Your task to perform on an android device: Do I have any events today? Image 0: 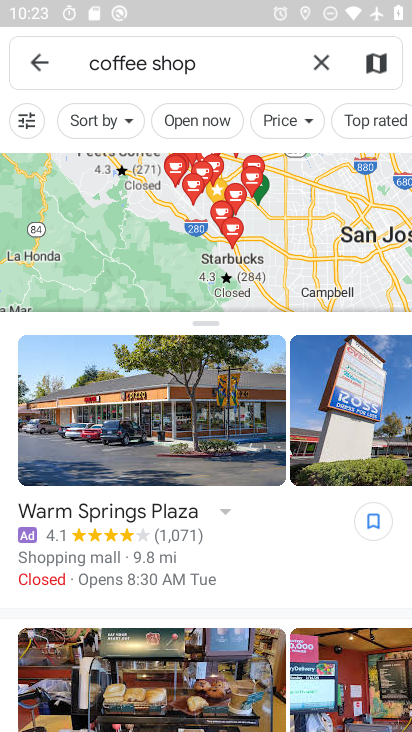
Step 0: press home button
Your task to perform on an android device: Do I have any events today? Image 1: 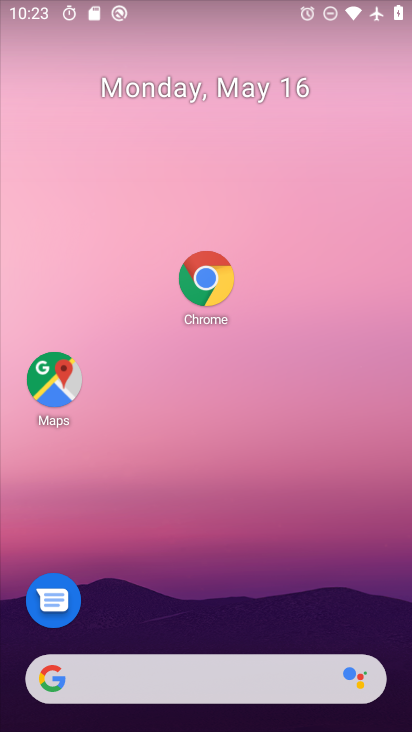
Step 1: drag from (184, 674) to (355, 240)
Your task to perform on an android device: Do I have any events today? Image 2: 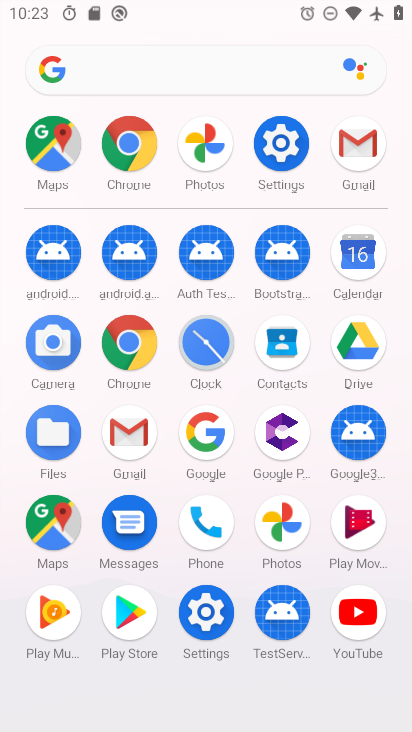
Step 2: click (349, 268)
Your task to perform on an android device: Do I have any events today? Image 3: 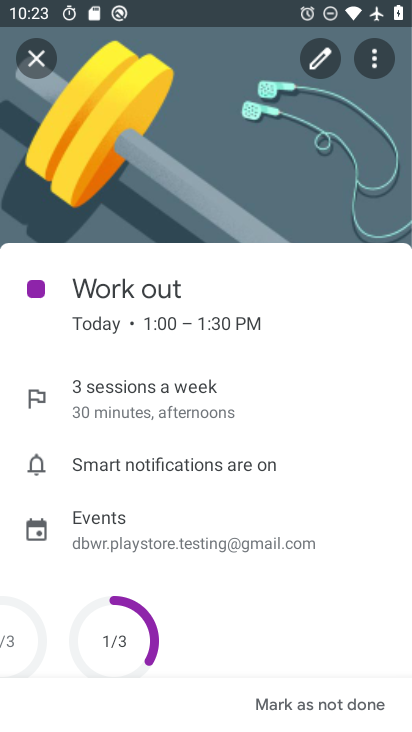
Step 3: click (44, 62)
Your task to perform on an android device: Do I have any events today? Image 4: 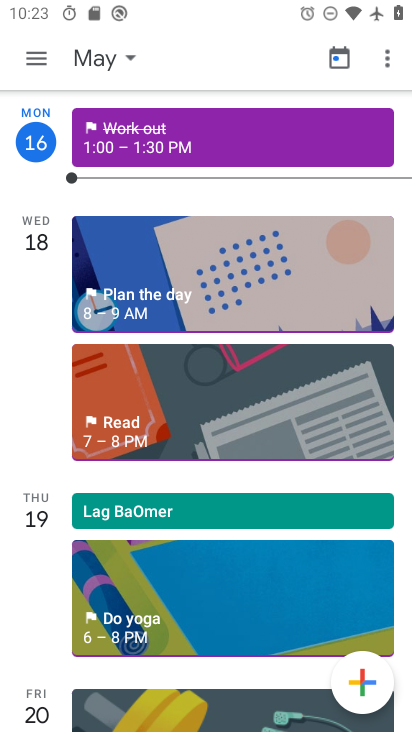
Step 4: click (99, 59)
Your task to perform on an android device: Do I have any events today? Image 5: 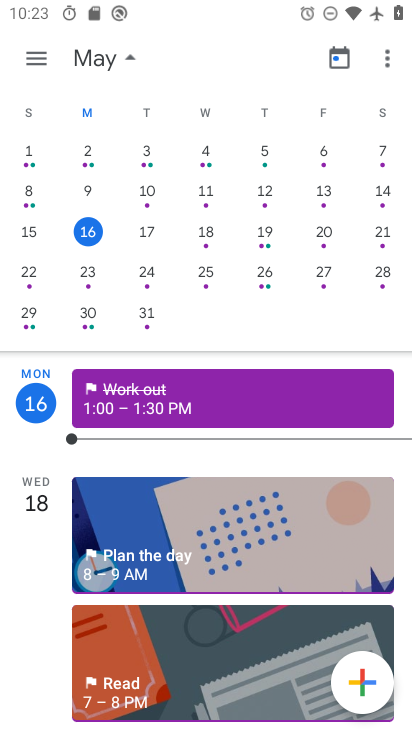
Step 5: click (28, 61)
Your task to perform on an android device: Do I have any events today? Image 6: 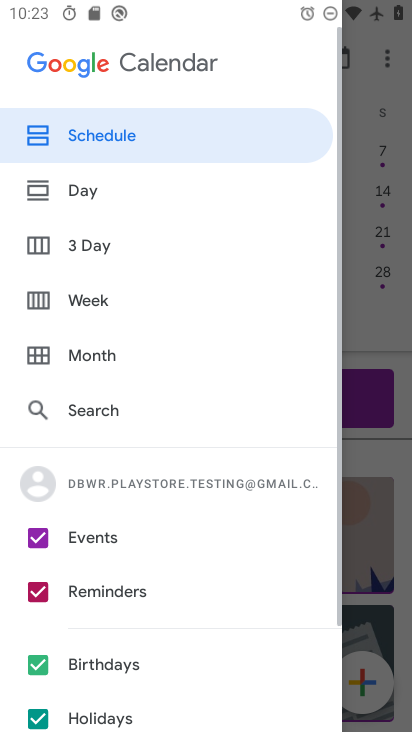
Step 6: click (87, 136)
Your task to perform on an android device: Do I have any events today? Image 7: 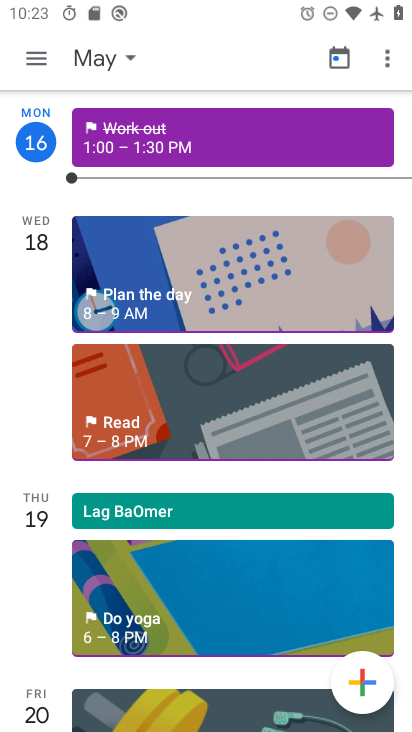
Step 7: click (137, 162)
Your task to perform on an android device: Do I have any events today? Image 8: 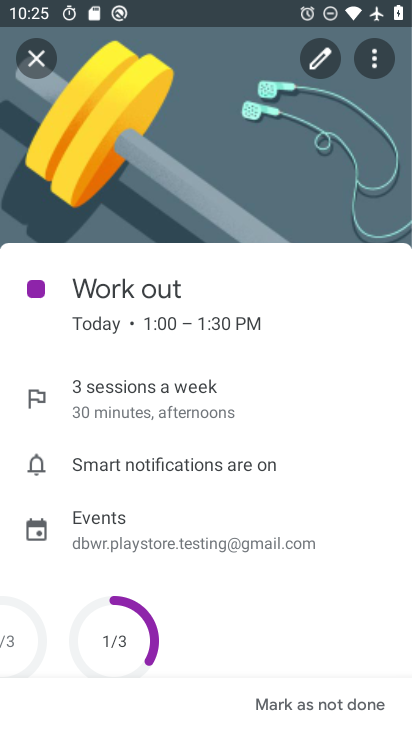
Step 8: task complete